Your task to perform on an android device: Go to battery settings Image 0: 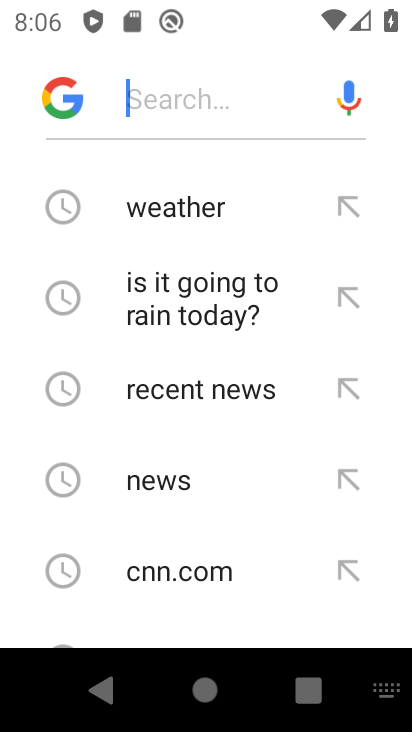
Step 0: press home button
Your task to perform on an android device: Go to battery settings Image 1: 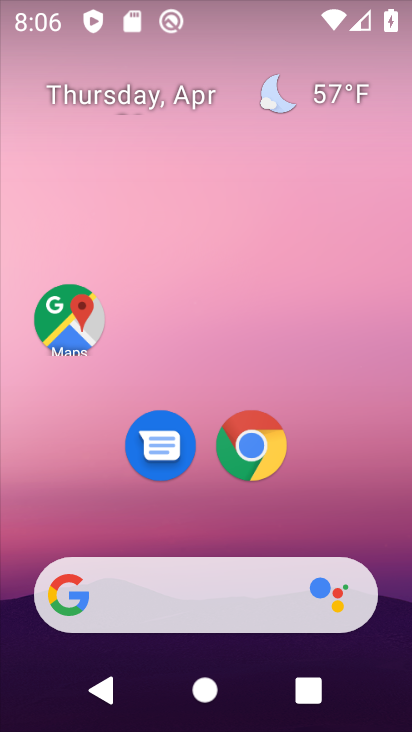
Step 1: drag from (382, 526) to (366, 13)
Your task to perform on an android device: Go to battery settings Image 2: 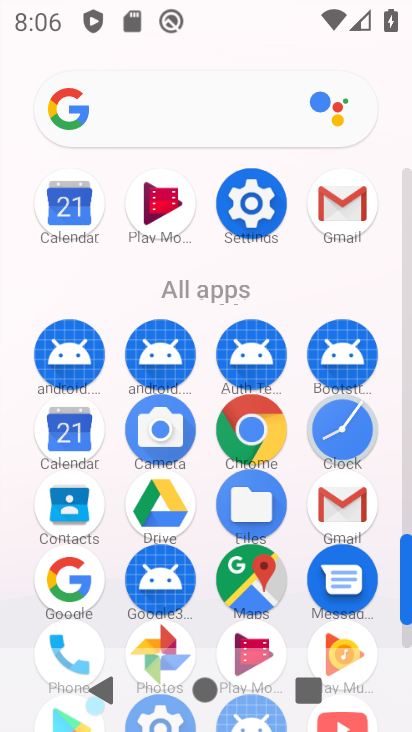
Step 2: click (256, 191)
Your task to perform on an android device: Go to battery settings Image 3: 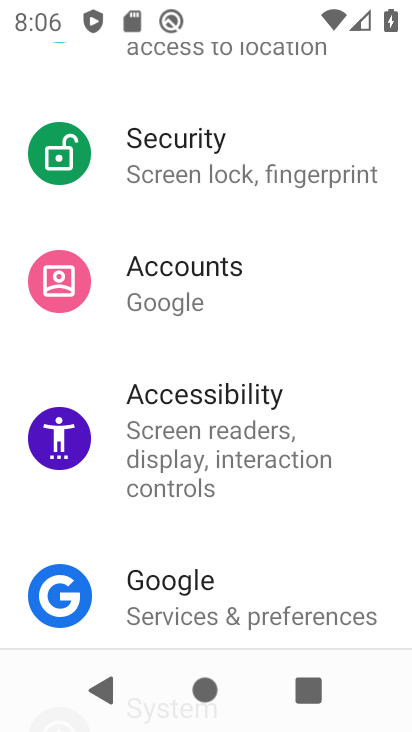
Step 3: drag from (334, 291) to (314, 593)
Your task to perform on an android device: Go to battery settings Image 4: 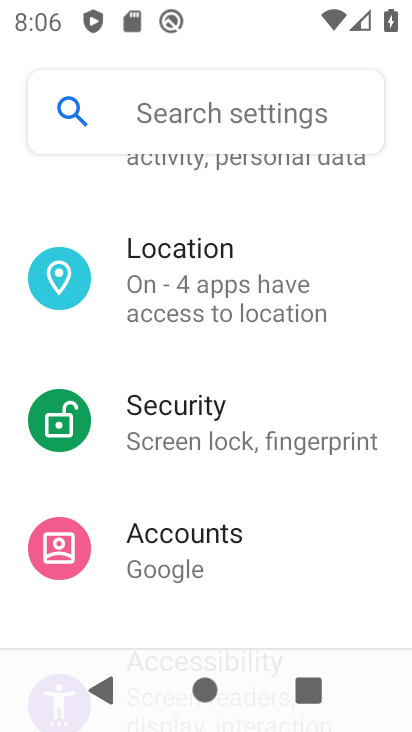
Step 4: drag from (350, 308) to (352, 555)
Your task to perform on an android device: Go to battery settings Image 5: 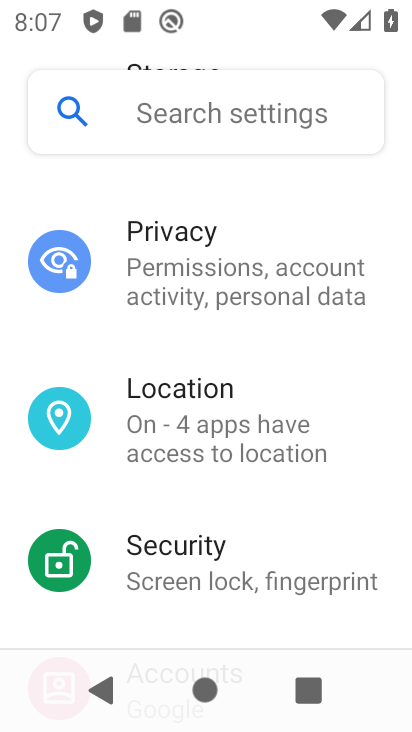
Step 5: drag from (347, 304) to (327, 494)
Your task to perform on an android device: Go to battery settings Image 6: 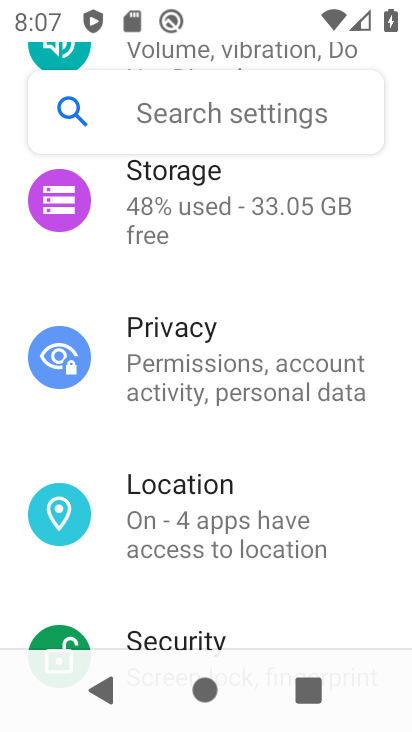
Step 6: drag from (263, 304) to (271, 540)
Your task to perform on an android device: Go to battery settings Image 7: 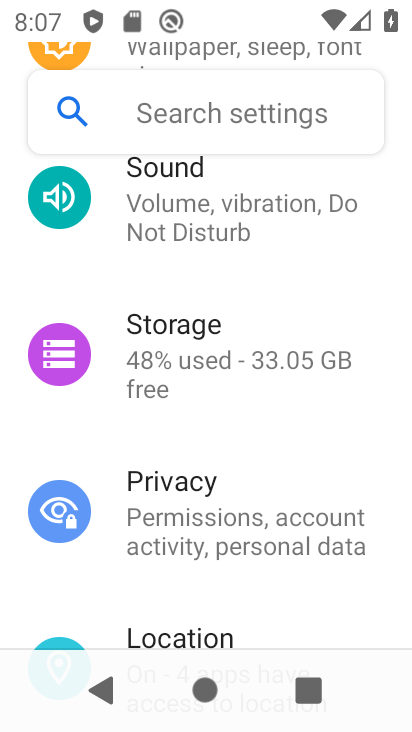
Step 7: drag from (241, 313) to (254, 508)
Your task to perform on an android device: Go to battery settings Image 8: 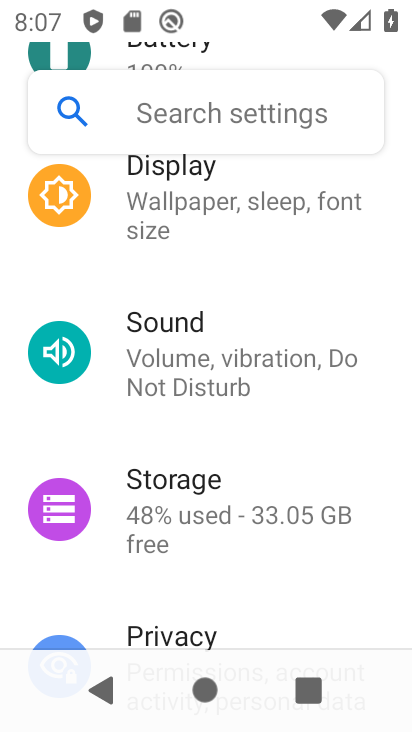
Step 8: drag from (271, 275) to (261, 557)
Your task to perform on an android device: Go to battery settings Image 9: 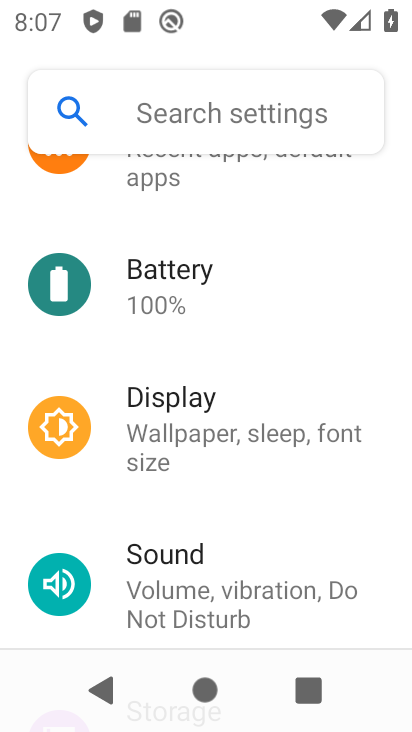
Step 9: click (162, 276)
Your task to perform on an android device: Go to battery settings Image 10: 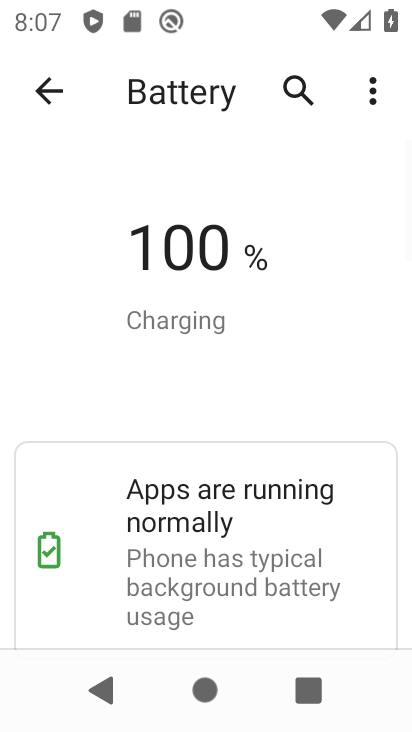
Step 10: task complete